Your task to perform on an android device: turn off wifi Image 0: 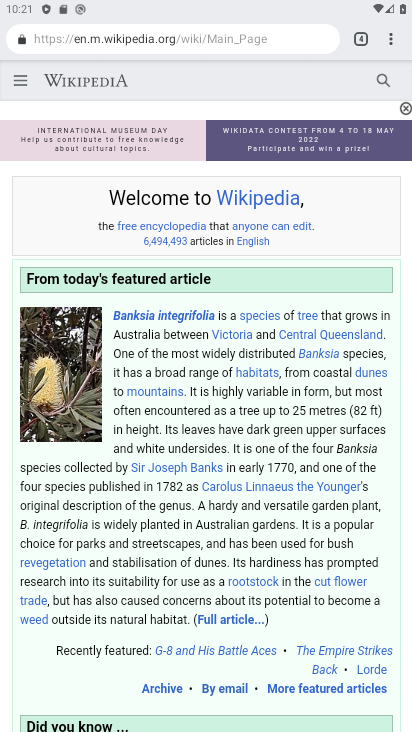
Step 0: press home button
Your task to perform on an android device: turn off wifi Image 1: 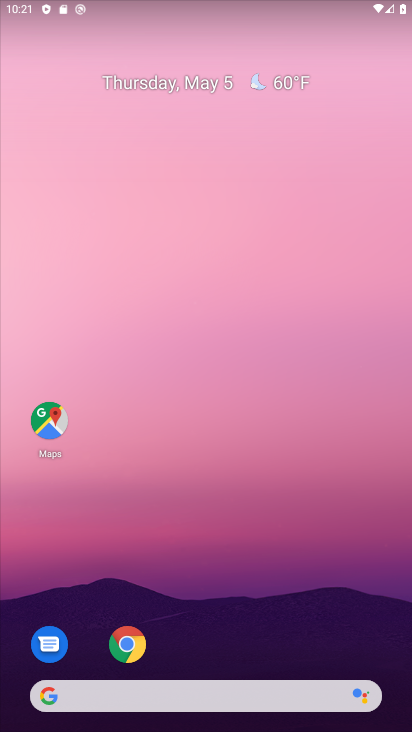
Step 1: drag from (385, 539) to (363, 0)
Your task to perform on an android device: turn off wifi Image 2: 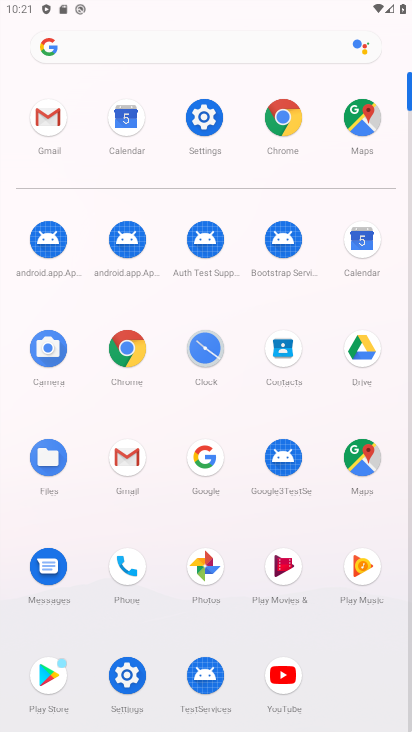
Step 2: click (209, 120)
Your task to perform on an android device: turn off wifi Image 3: 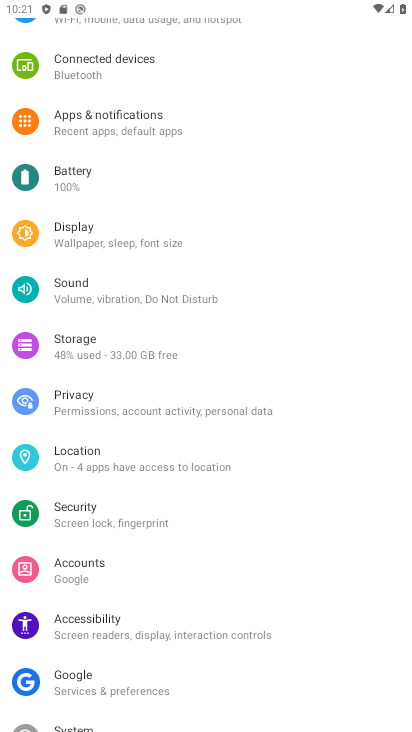
Step 3: drag from (246, 115) to (246, 504)
Your task to perform on an android device: turn off wifi Image 4: 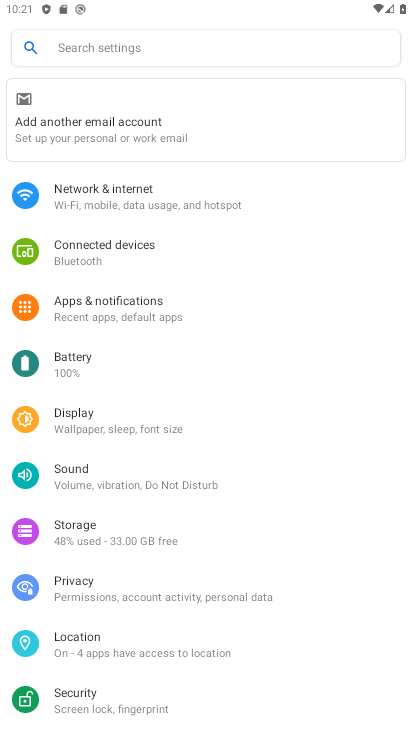
Step 4: click (159, 203)
Your task to perform on an android device: turn off wifi Image 5: 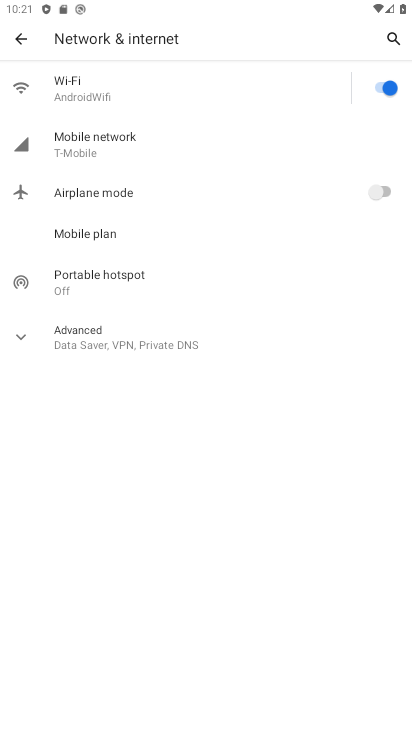
Step 5: click (384, 82)
Your task to perform on an android device: turn off wifi Image 6: 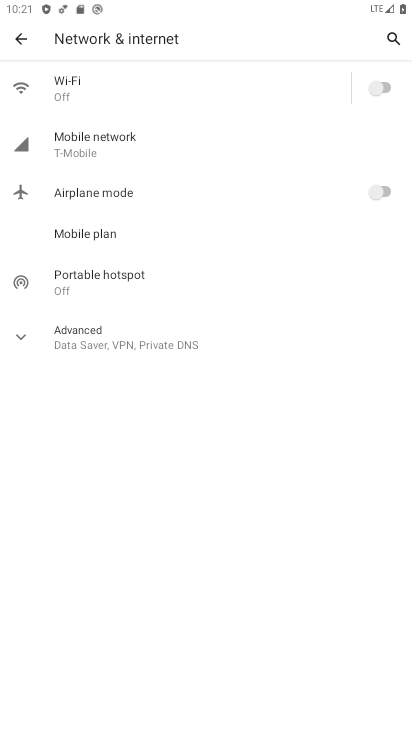
Step 6: task complete